Your task to perform on an android device: Go to settings Image 0: 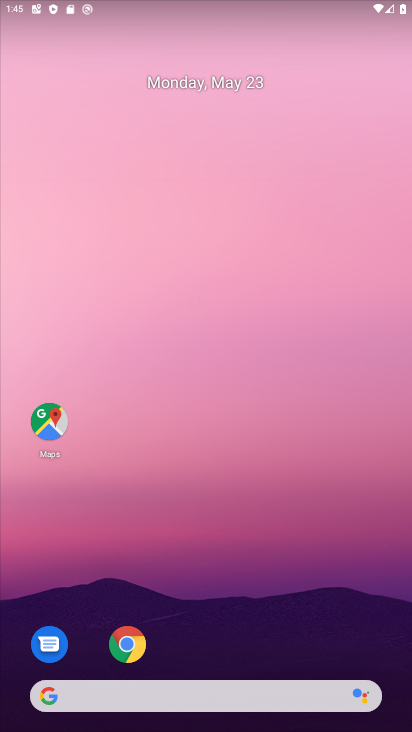
Step 0: drag from (223, 537) to (204, 4)
Your task to perform on an android device: Go to settings Image 1: 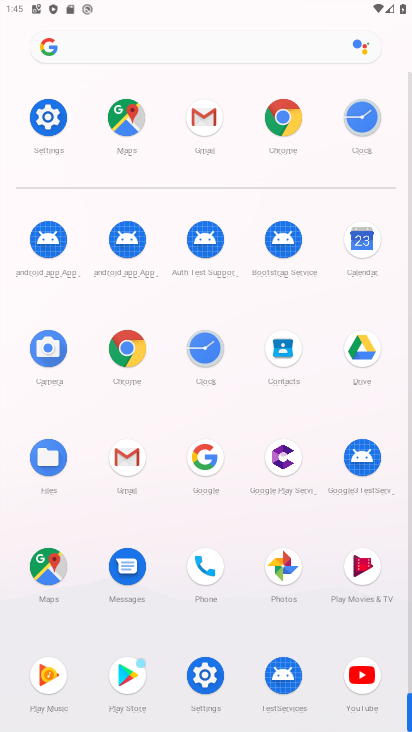
Step 1: drag from (7, 546) to (4, 211)
Your task to perform on an android device: Go to settings Image 2: 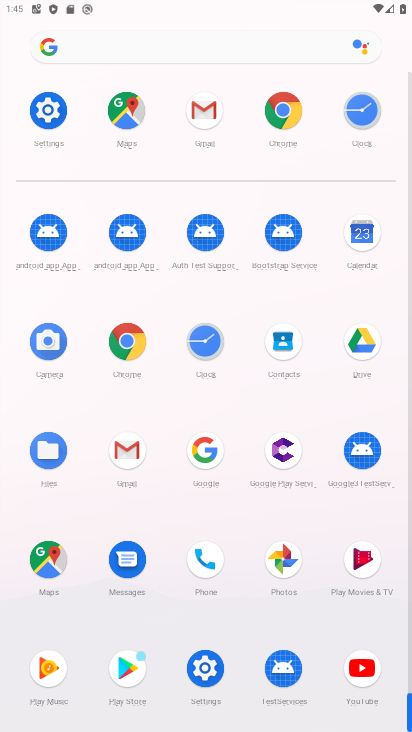
Step 2: click (201, 663)
Your task to perform on an android device: Go to settings Image 3: 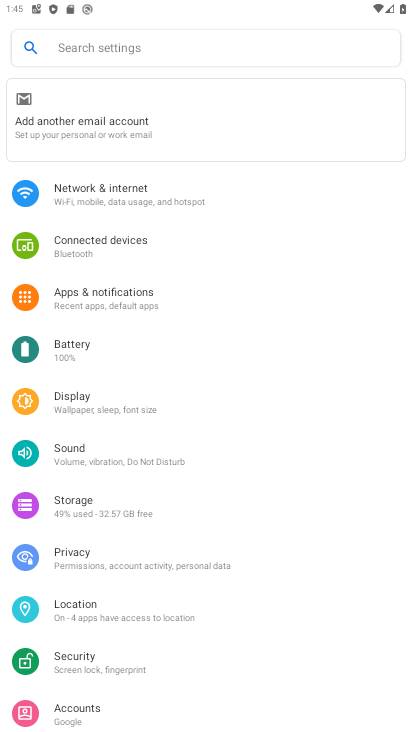
Step 3: task complete